Your task to perform on an android device: change your default location settings in chrome Image 0: 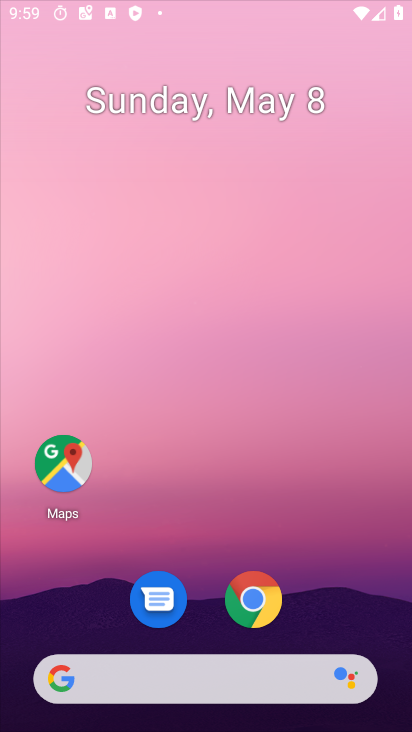
Step 0: click (211, 21)
Your task to perform on an android device: change your default location settings in chrome Image 1: 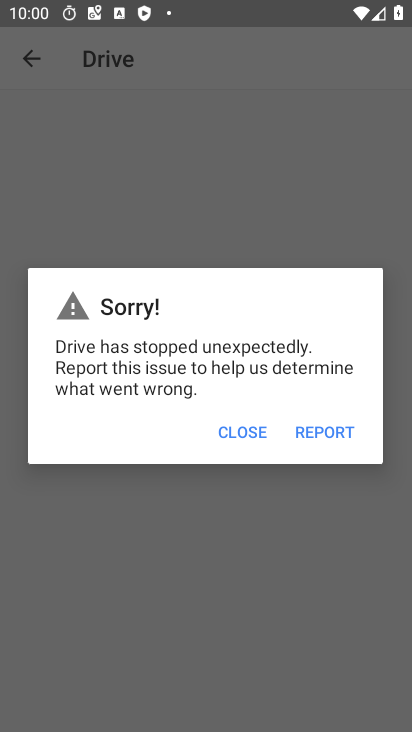
Step 1: press home button
Your task to perform on an android device: change your default location settings in chrome Image 2: 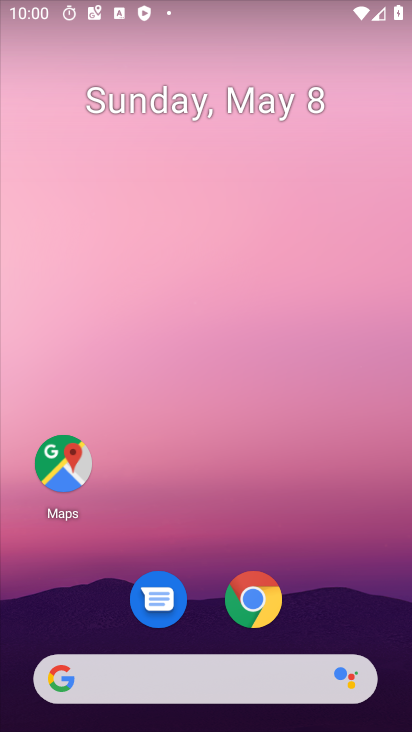
Step 2: drag from (196, 683) to (177, 51)
Your task to perform on an android device: change your default location settings in chrome Image 3: 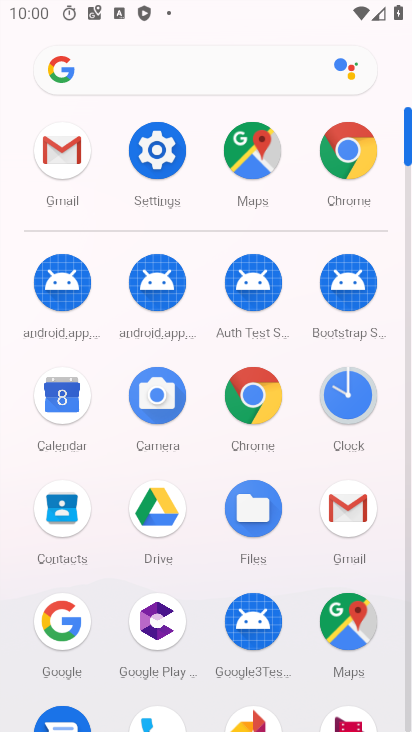
Step 3: click (363, 199)
Your task to perform on an android device: change your default location settings in chrome Image 4: 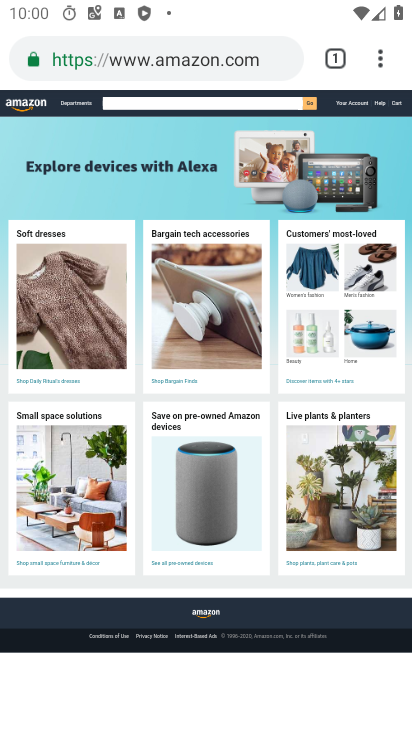
Step 4: click (383, 69)
Your task to perform on an android device: change your default location settings in chrome Image 5: 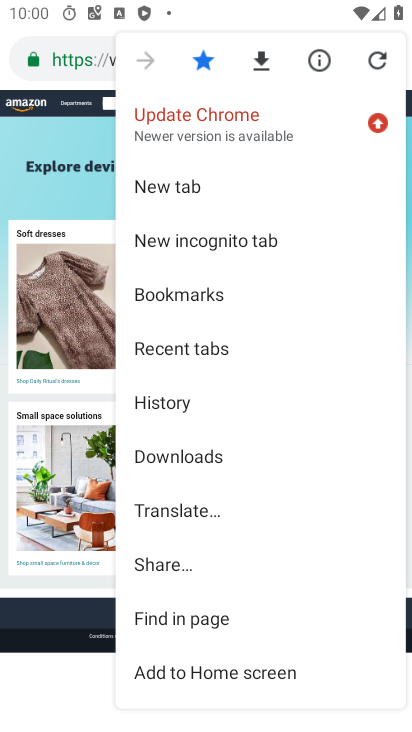
Step 5: drag from (275, 360) to (300, 92)
Your task to perform on an android device: change your default location settings in chrome Image 6: 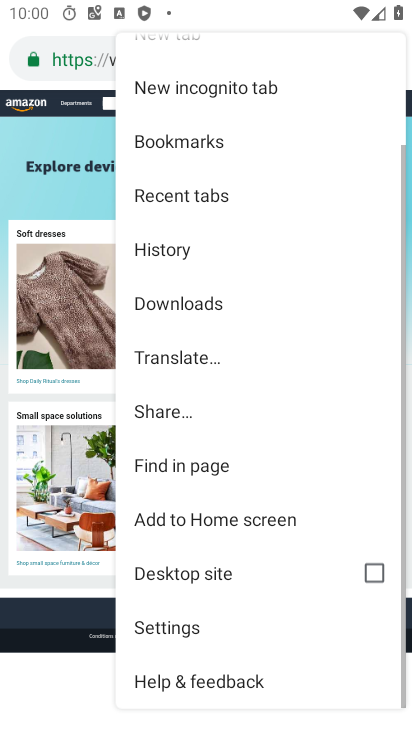
Step 6: drag from (240, 417) to (255, 201)
Your task to perform on an android device: change your default location settings in chrome Image 7: 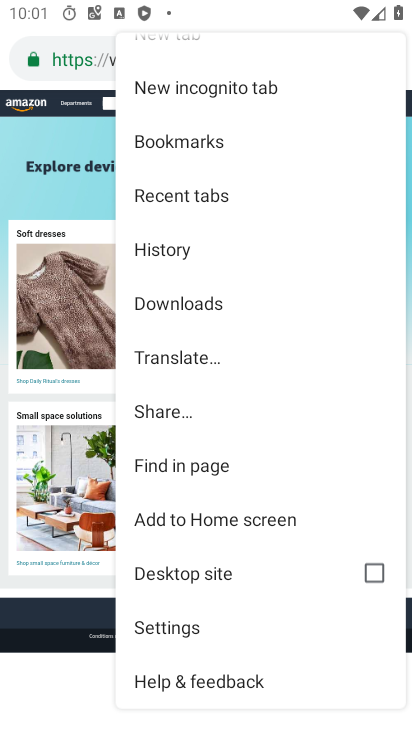
Step 7: click (197, 627)
Your task to perform on an android device: change your default location settings in chrome Image 8: 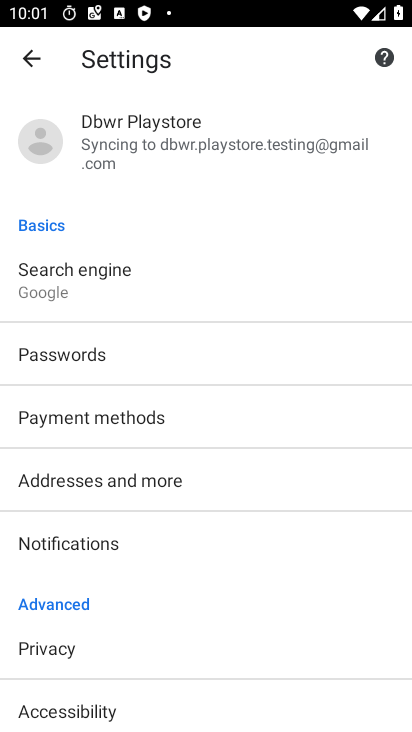
Step 8: drag from (199, 624) to (267, 97)
Your task to perform on an android device: change your default location settings in chrome Image 9: 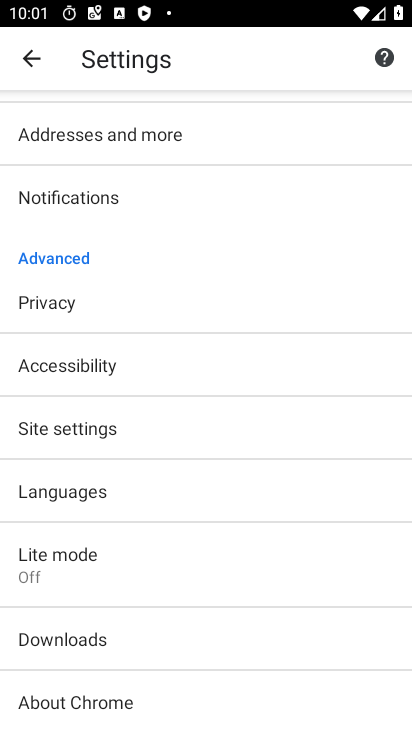
Step 9: click (150, 435)
Your task to perform on an android device: change your default location settings in chrome Image 10: 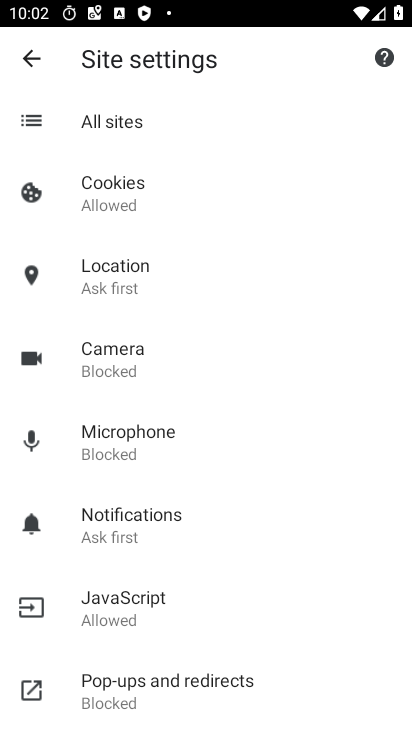
Step 10: click (107, 277)
Your task to perform on an android device: change your default location settings in chrome Image 11: 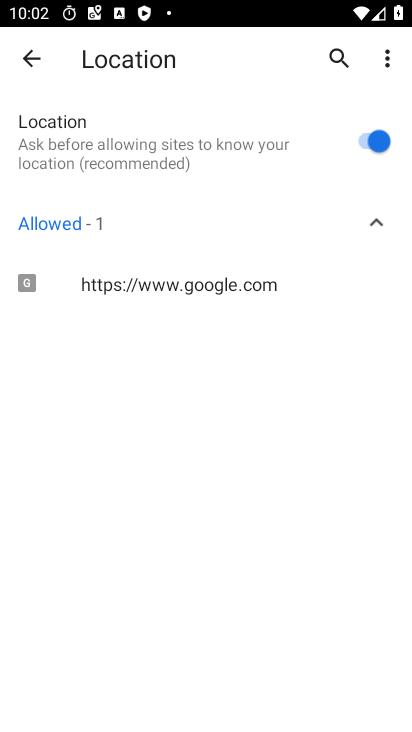
Step 11: click (374, 139)
Your task to perform on an android device: change your default location settings in chrome Image 12: 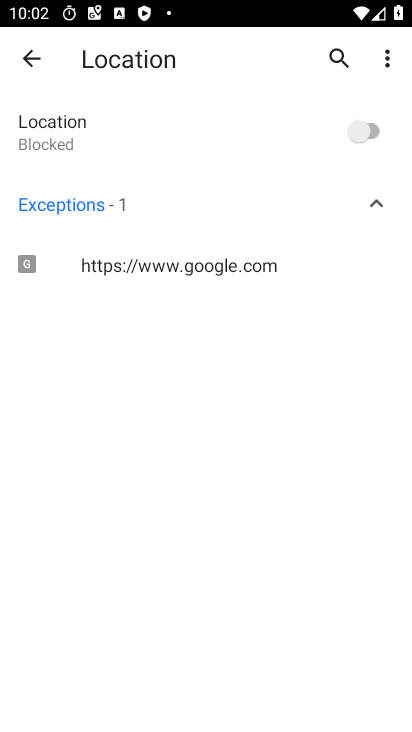
Step 12: task complete